Your task to perform on an android device: Open Google Chrome and click the shortcut for Amazon.com Image 0: 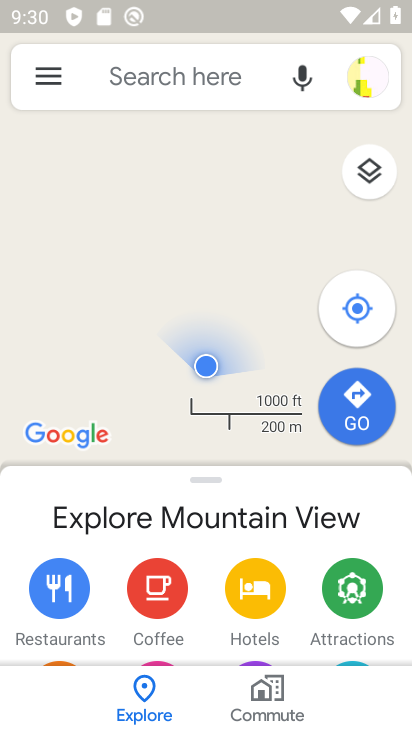
Step 0: press home button
Your task to perform on an android device: Open Google Chrome and click the shortcut for Amazon.com Image 1: 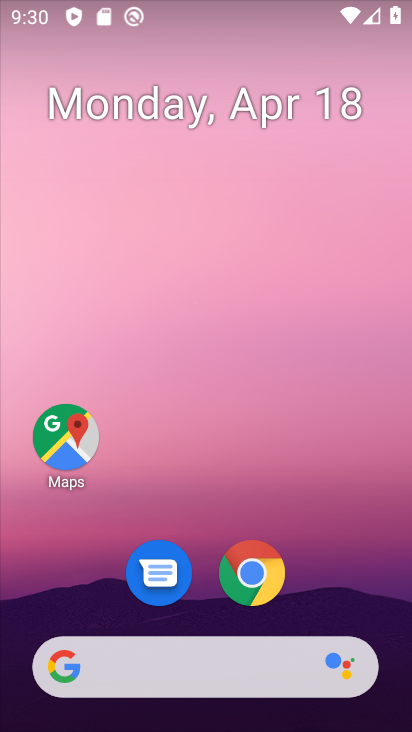
Step 1: drag from (363, 583) to (285, 39)
Your task to perform on an android device: Open Google Chrome and click the shortcut for Amazon.com Image 2: 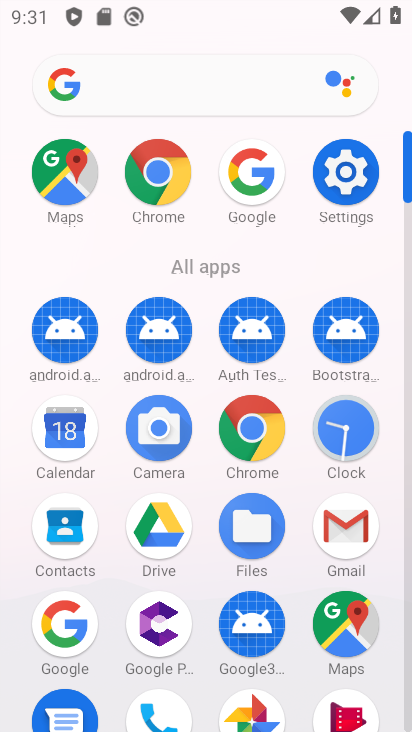
Step 2: click (266, 443)
Your task to perform on an android device: Open Google Chrome and click the shortcut for Amazon.com Image 3: 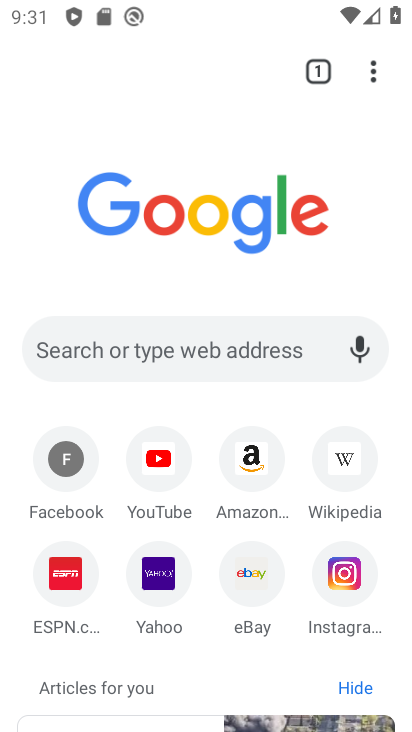
Step 3: click (262, 462)
Your task to perform on an android device: Open Google Chrome and click the shortcut for Amazon.com Image 4: 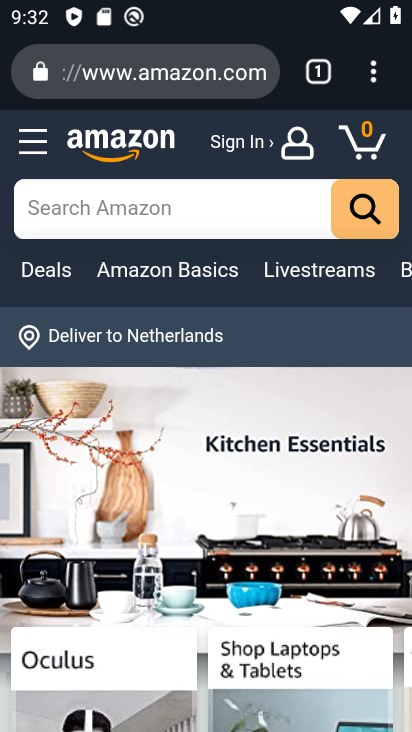
Step 4: task complete